Your task to perform on an android device: Set the phone to "Do not disturb". Image 0: 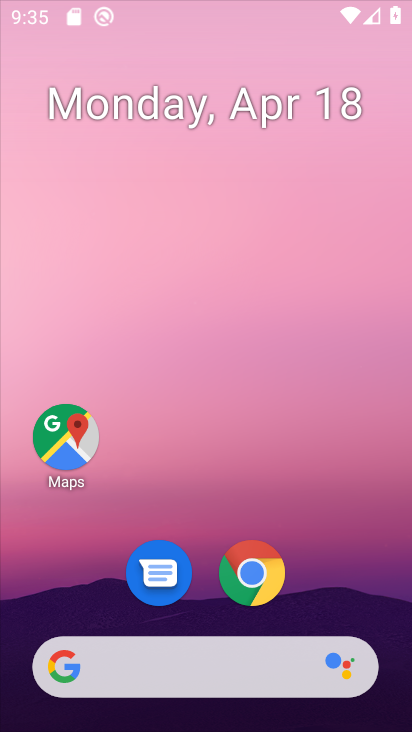
Step 0: drag from (375, 594) to (274, 53)
Your task to perform on an android device: Set the phone to "Do not disturb". Image 1: 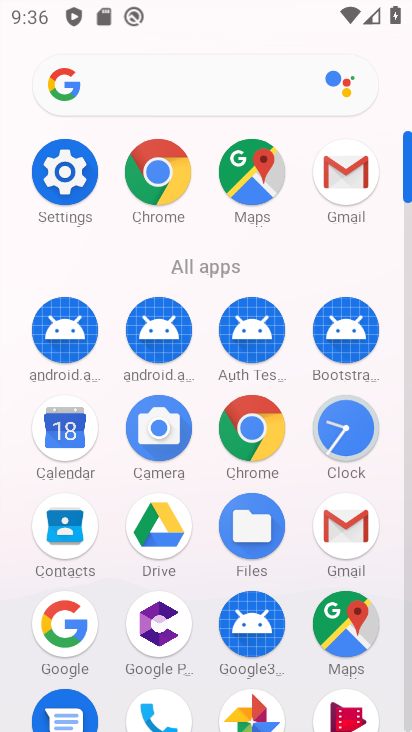
Step 1: drag from (214, 6) to (228, 430)
Your task to perform on an android device: Set the phone to "Do not disturb". Image 2: 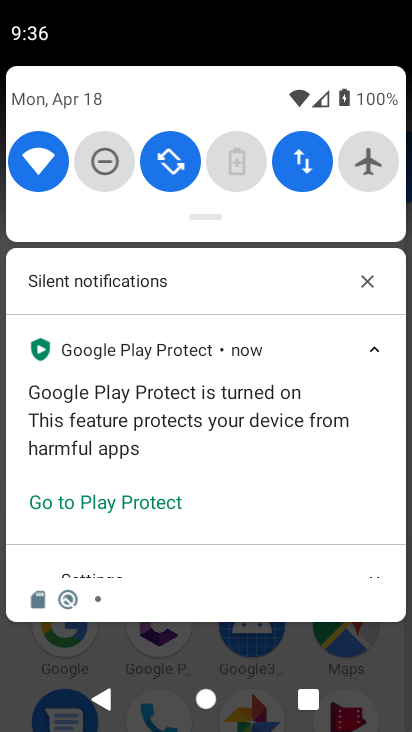
Step 2: click (104, 159)
Your task to perform on an android device: Set the phone to "Do not disturb". Image 3: 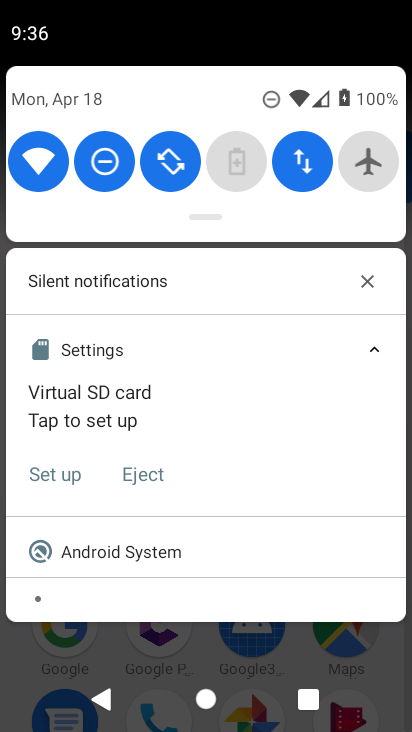
Step 3: task complete